Your task to perform on an android device: Search for vegetarian restaurants on Maps Image 0: 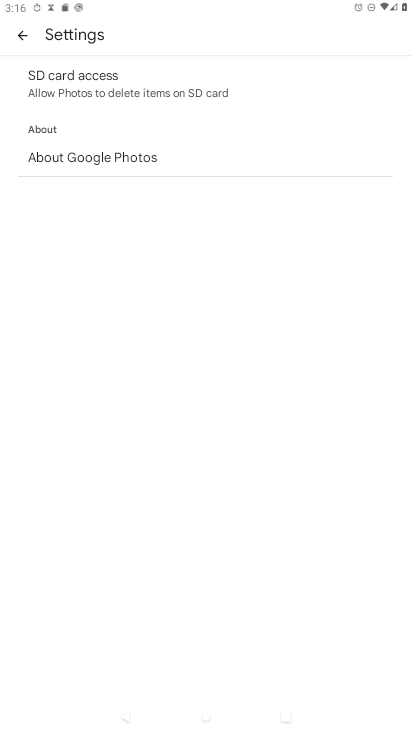
Step 0: press home button
Your task to perform on an android device: Search for vegetarian restaurants on Maps Image 1: 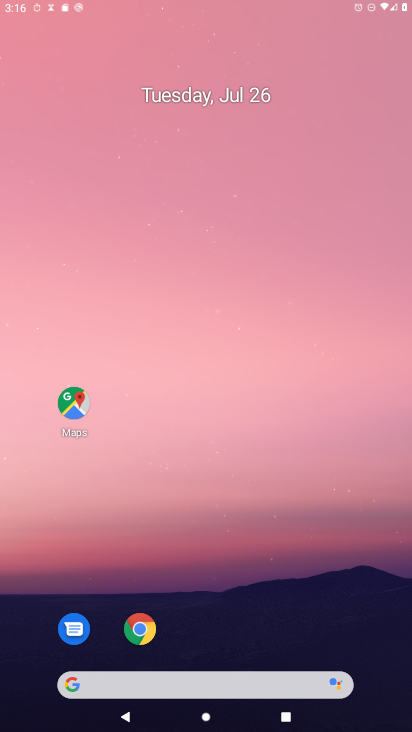
Step 1: drag from (246, 668) to (327, 16)
Your task to perform on an android device: Search for vegetarian restaurants on Maps Image 2: 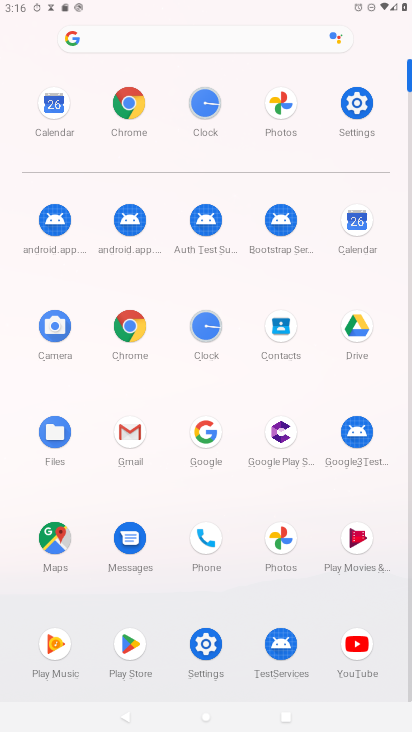
Step 2: click (49, 547)
Your task to perform on an android device: Search for vegetarian restaurants on Maps Image 3: 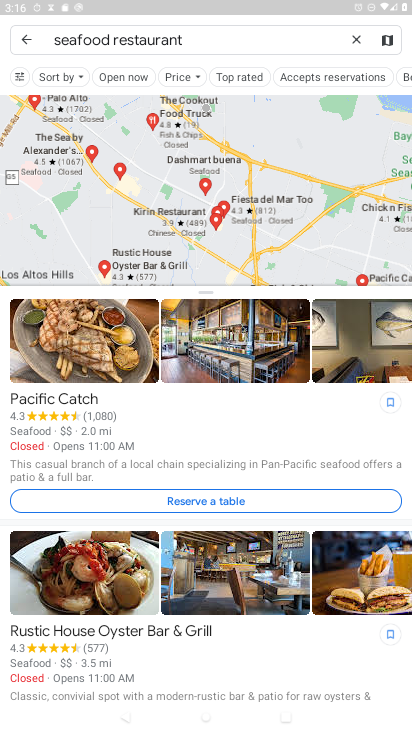
Step 3: click (358, 35)
Your task to perform on an android device: Search for vegetarian restaurants on Maps Image 4: 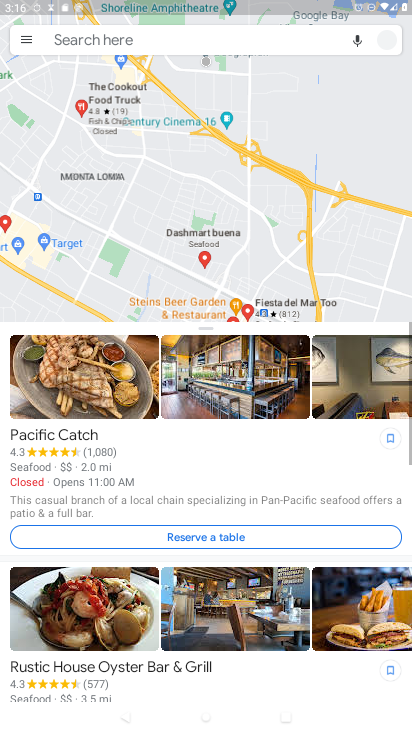
Step 4: click (235, 36)
Your task to perform on an android device: Search for vegetarian restaurants on Maps Image 5: 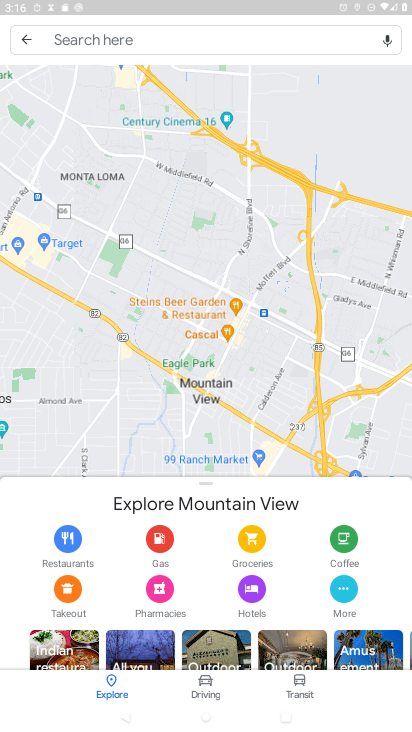
Step 5: click (277, 39)
Your task to perform on an android device: Search for vegetarian restaurants on Maps Image 6: 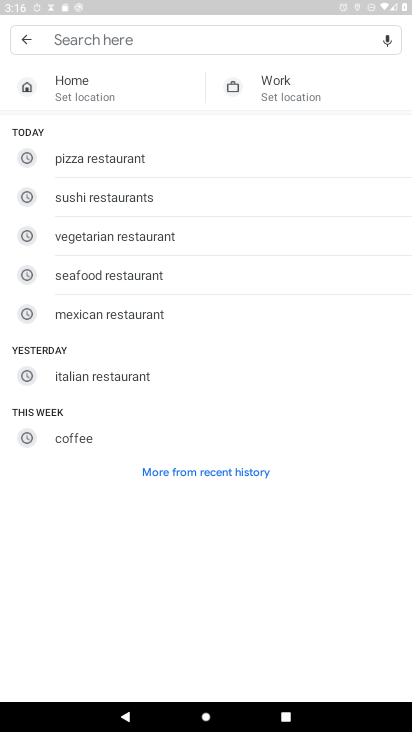
Step 6: click (139, 234)
Your task to perform on an android device: Search for vegetarian restaurants on Maps Image 7: 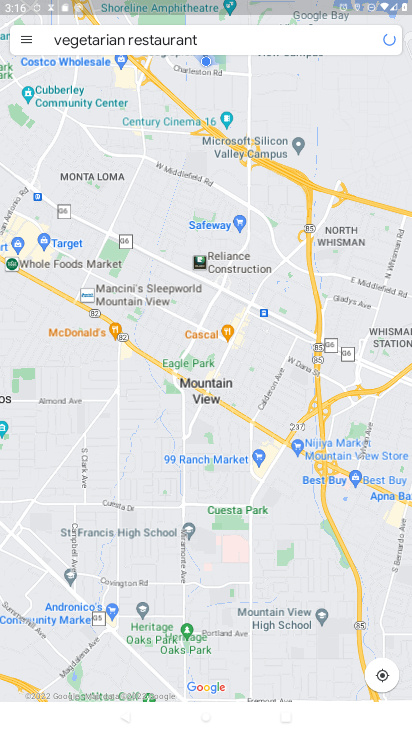
Step 7: task complete